Your task to perform on an android device: Go to Amazon Image 0: 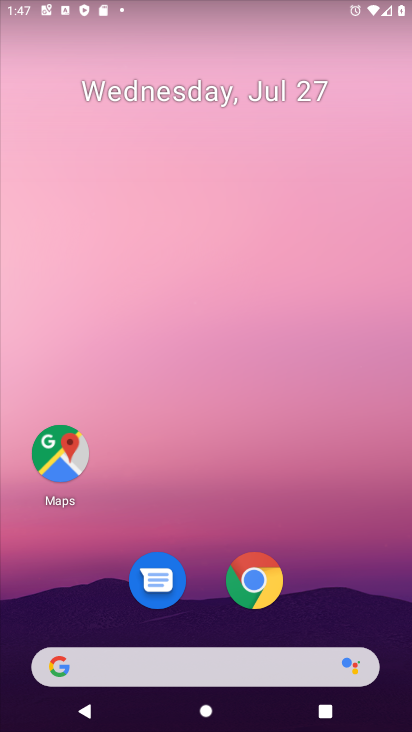
Step 0: click (261, 587)
Your task to perform on an android device: Go to Amazon Image 1: 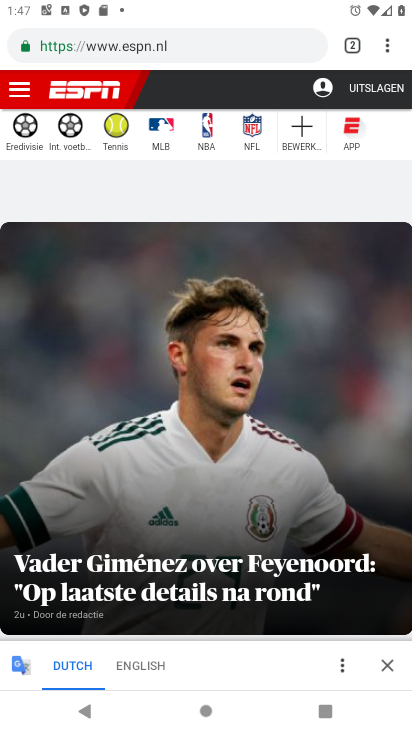
Step 1: click (350, 53)
Your task to perform on an android device: Go to Amazon Image 2: 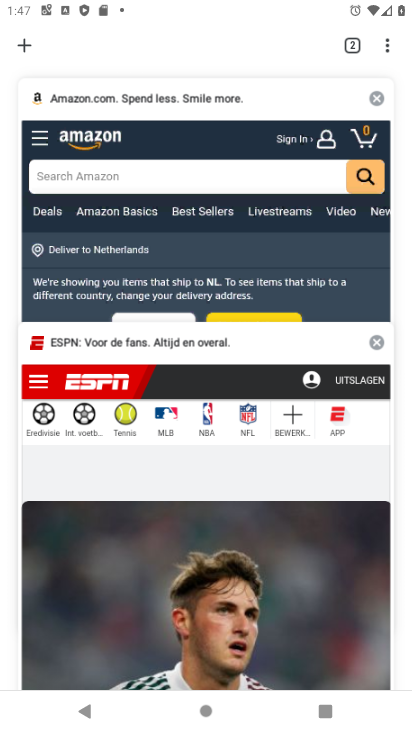
Step 2: click (23, 46)
Your task to perform on an android device: Go to Amazon Image 3: 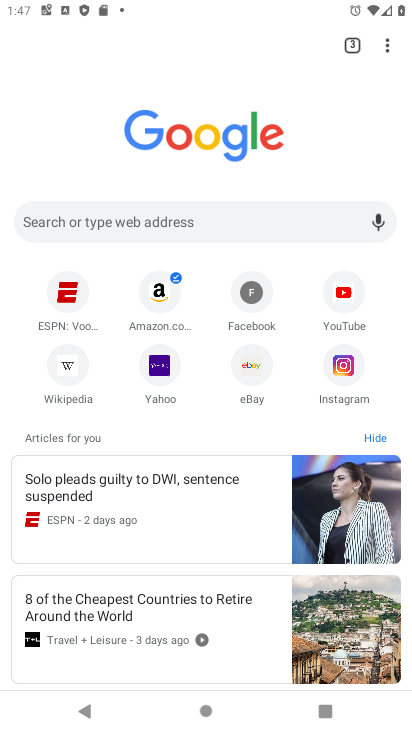
Step 3: click (161, 297)
Your task to perform on an android device: Go to Amazon Image 4: 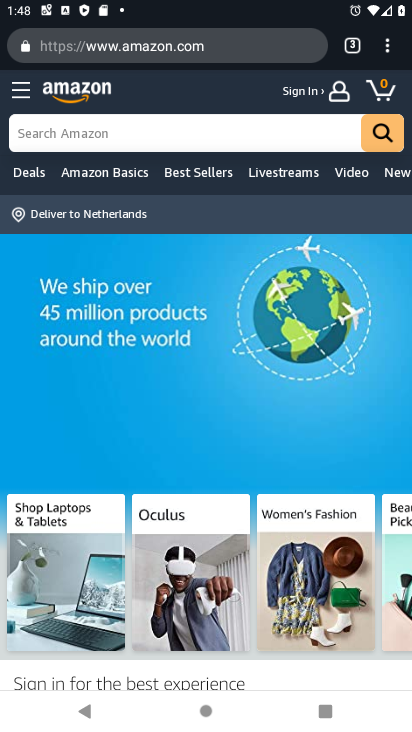
Step 4: task complete